Your task to perform on an android device: Check the news Image 0: 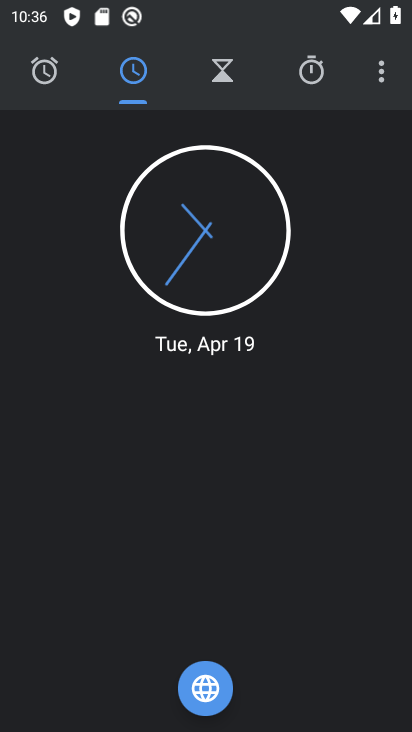
Step 0: press home button
Your task to perform on an android device: Check the news Image 1: 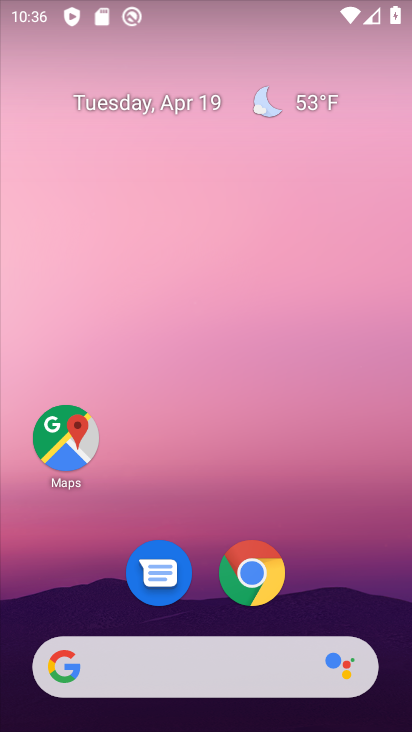
Step 1: task complete